Your task to perform on an android device: What's the weather going to be tomorrow? Image 0: 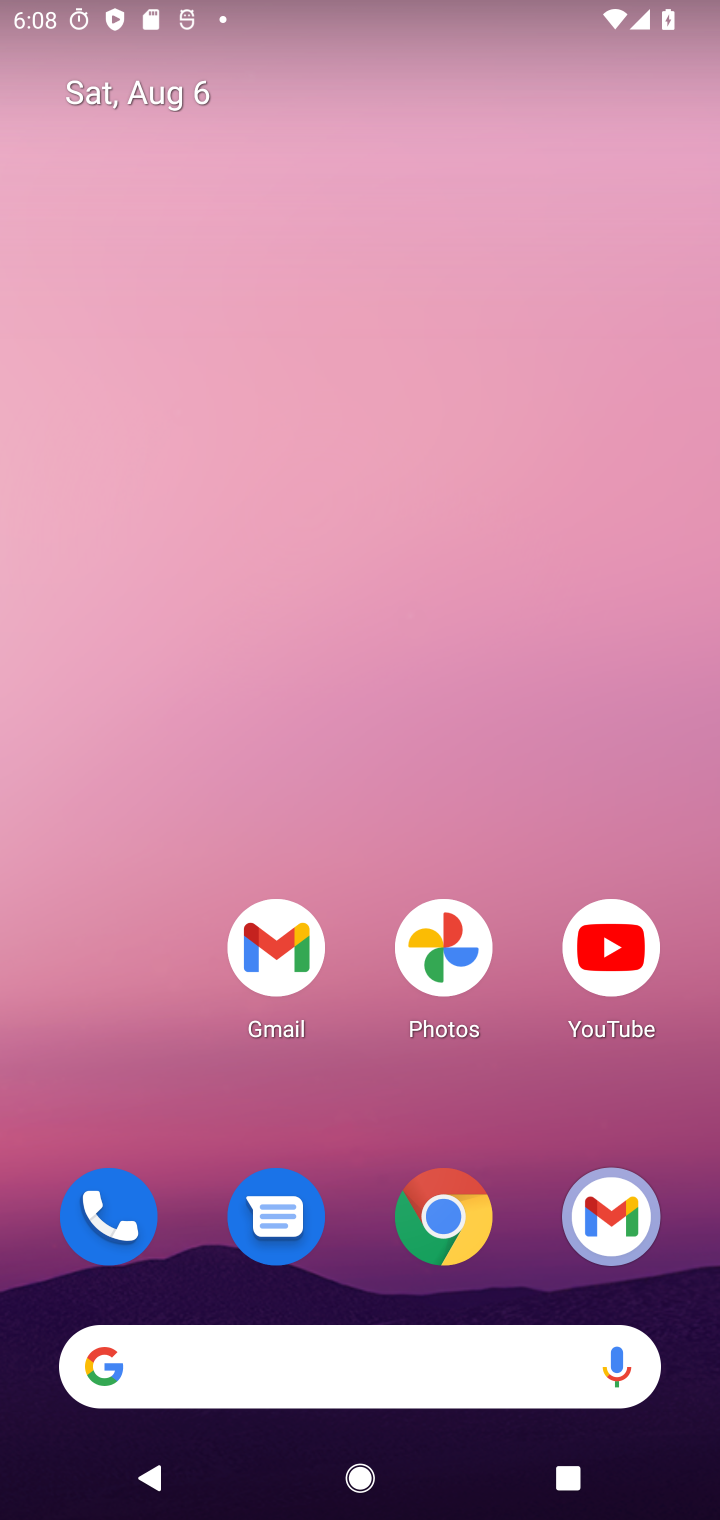
Step 0: drag from (399, 1044) to (353, 46)
Your task to perform on an android device: What's the weather going to be tomorrow? Image 1: 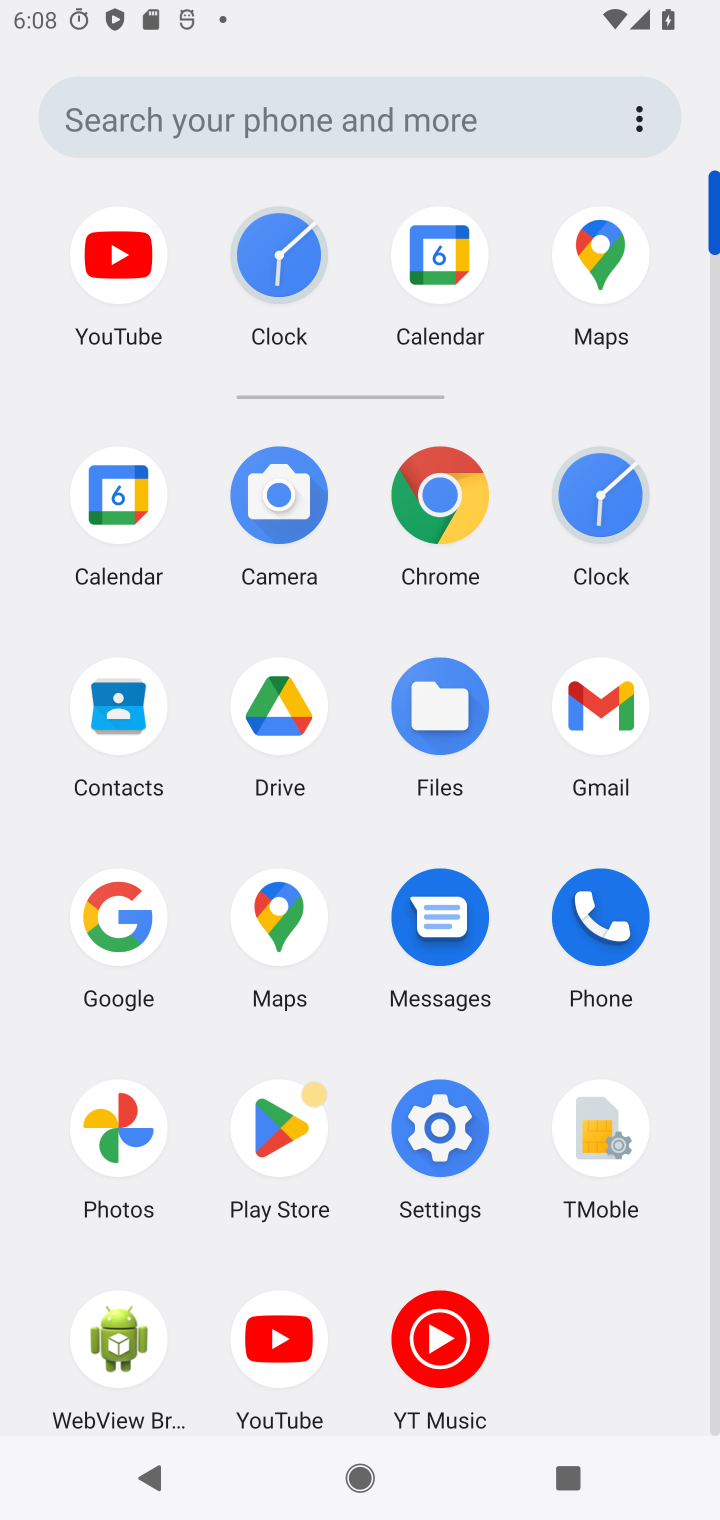
Step 1: click (437, 485)
Your task to perform on an android device: What's the weather going to be tomorrow? Image 2: 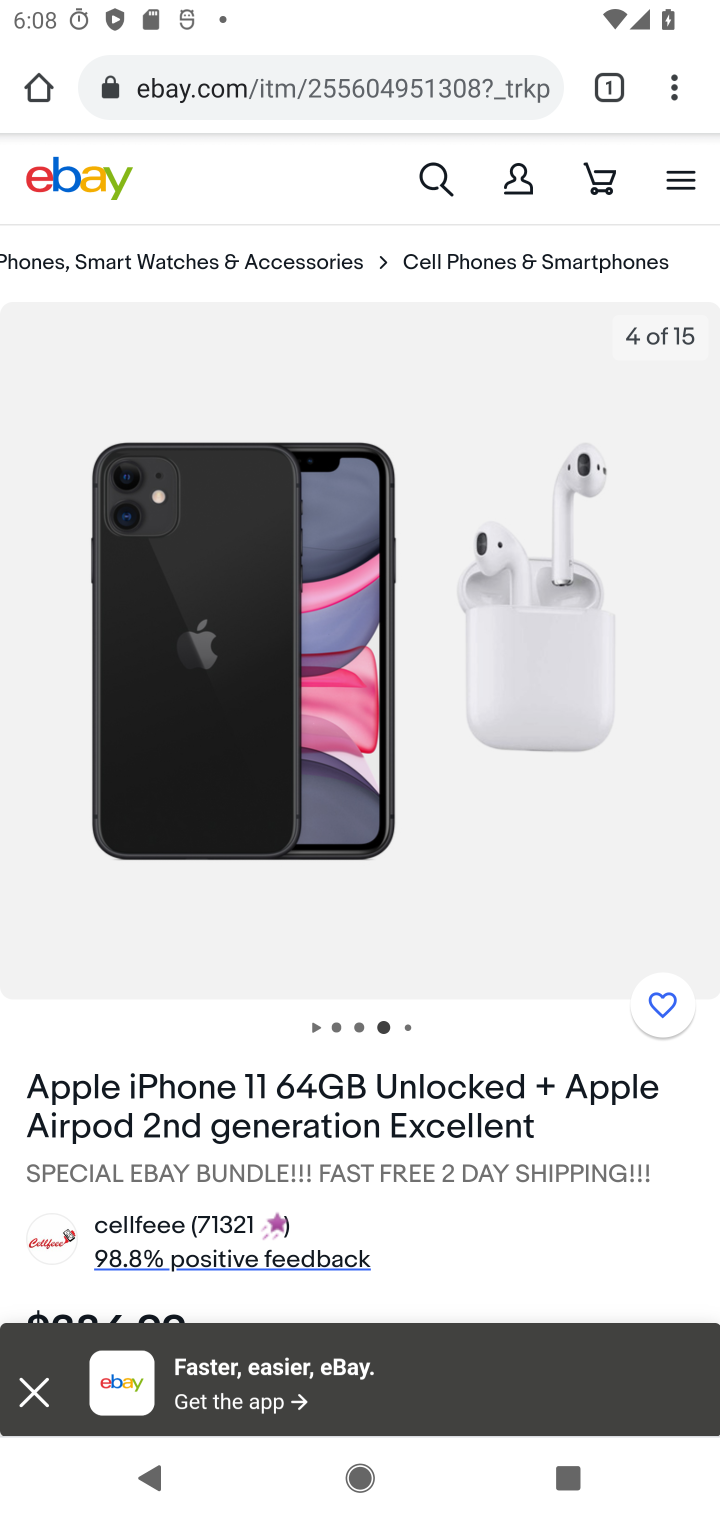
Step 2: click (380, 78)
Your task to perform on an android device: What's the weather going to be tomorrow? Image 3: 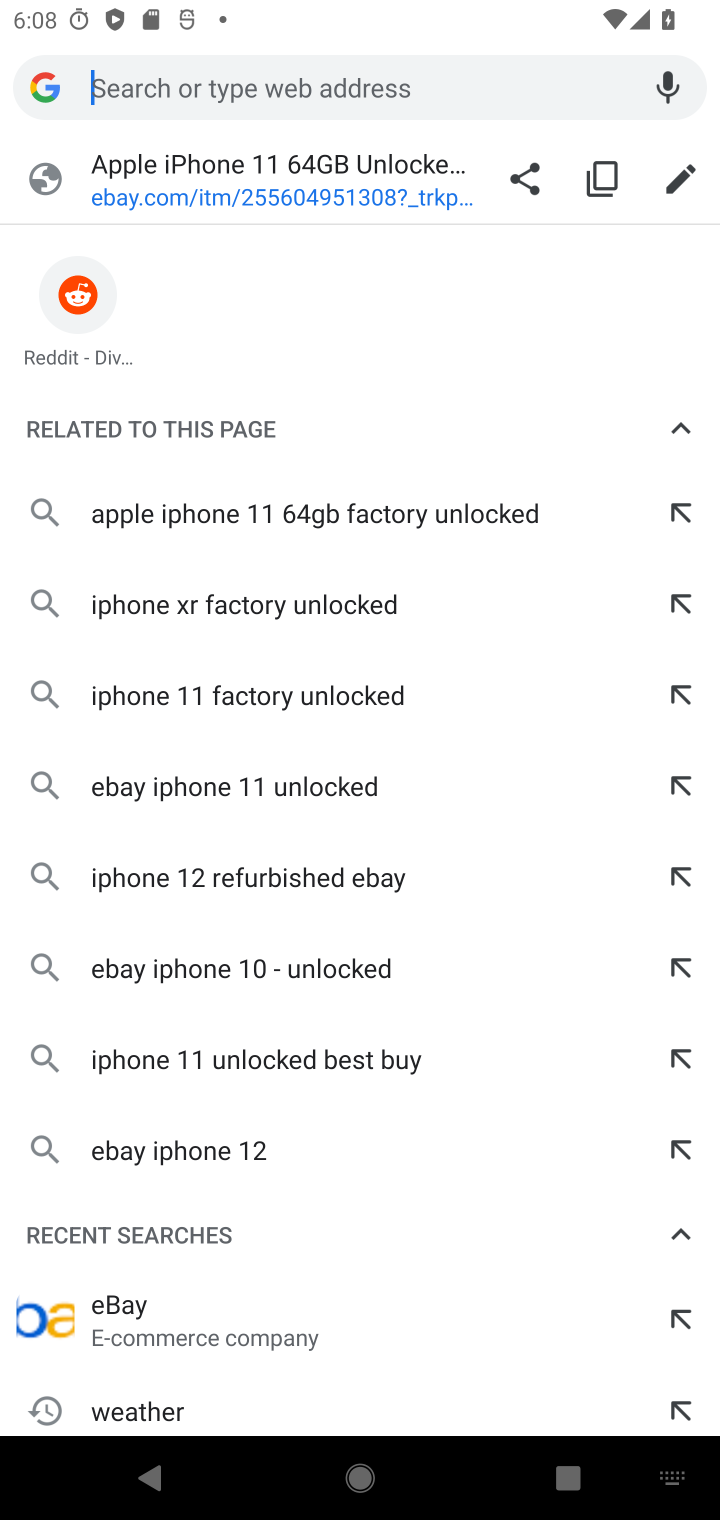
Step 3: type "weather"
Your task to perform on an android device: What's the weather going to be tomorrow? Image 4: 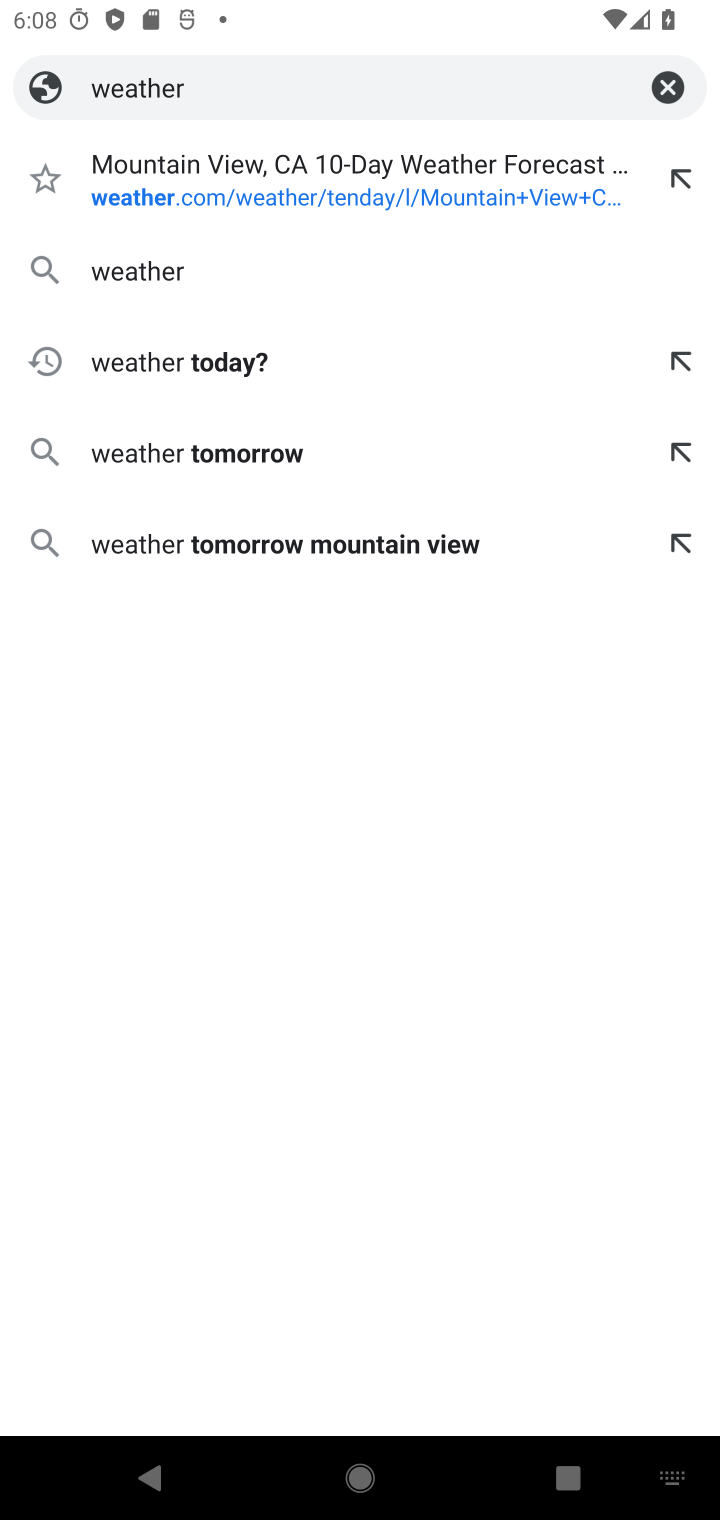
Step 4: click (152, 276)
Your task to perform on an android device: What's the weather going to be tomorrow? Image 5: 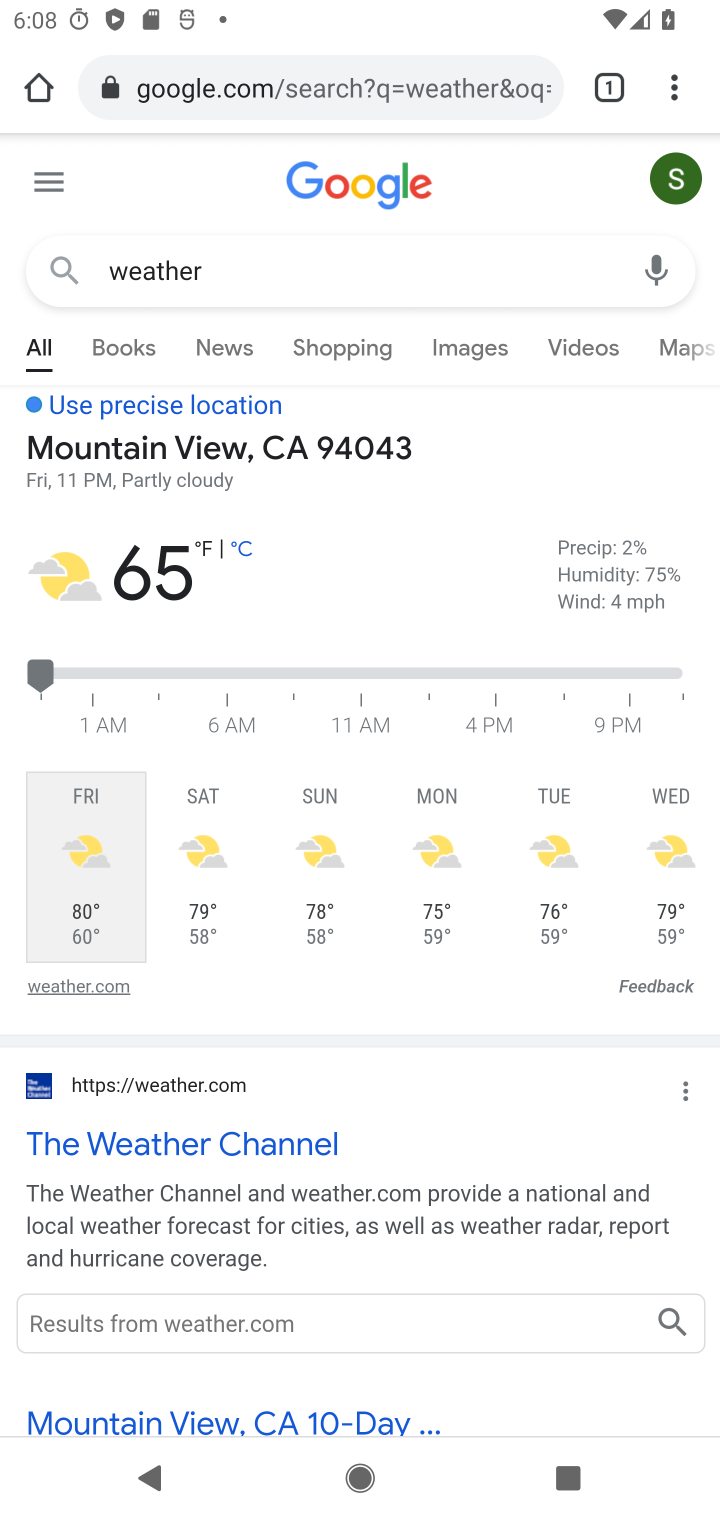
Step 5: click (222, 845)
Your task to perform on an android device: What's the weather going to be tomorrow? Image 6: 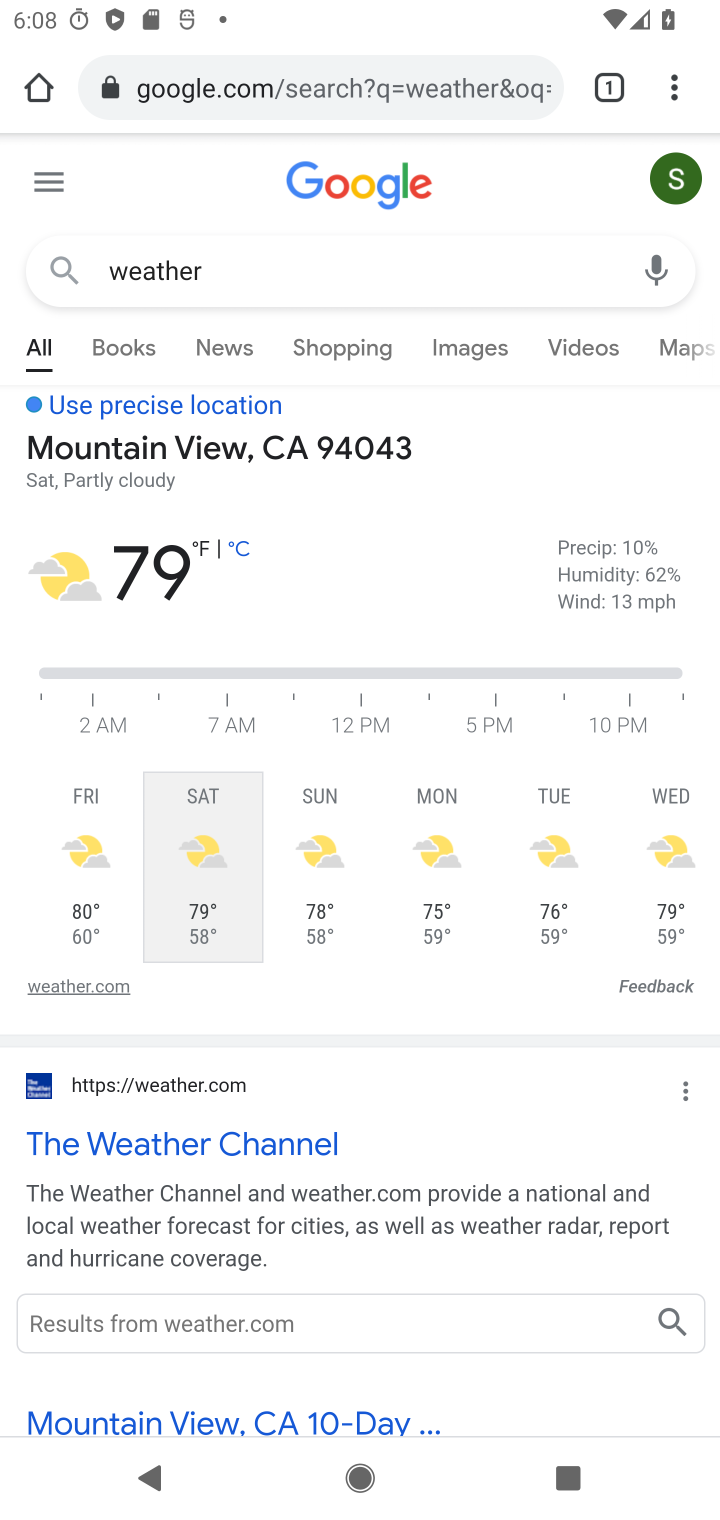
Step 6: task complete